Your task to perform on an android device: Show me the alarms in the clock app Image 0: 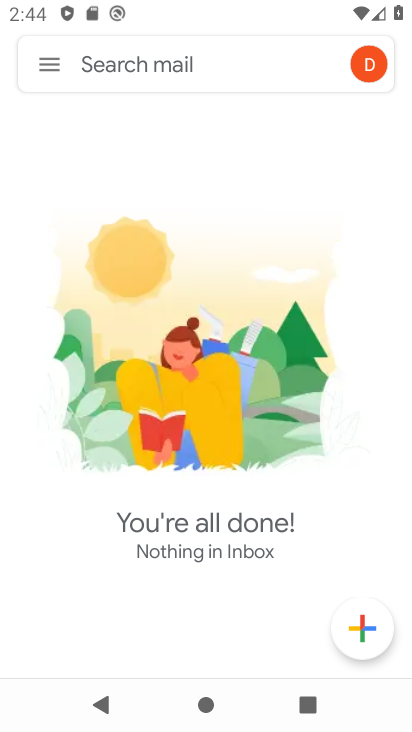
Step 0: press home button
Your task to perform on an android device: Show me the alarms in the clock app Image 1: 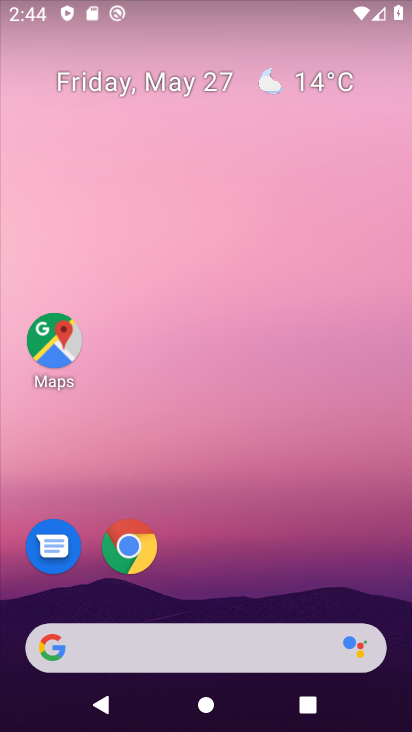
Step 1: drag from (153, 598) to (250, 214)
Your task to perform on an android device: Show me the alarms in the clock app Image 2: 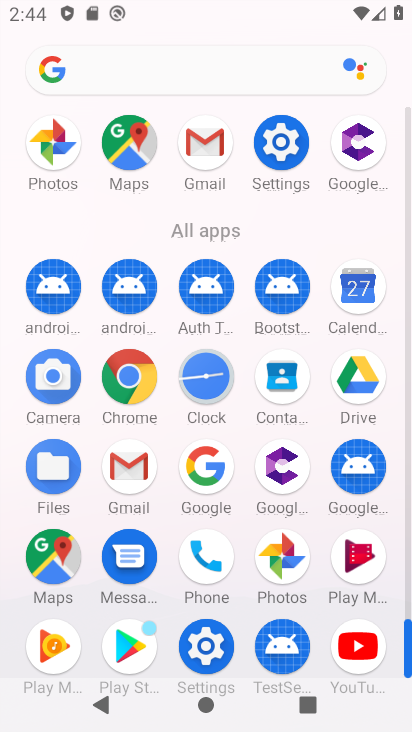
Step 2: click (199, 385)
Your task to perform on an android device: Show me the alarms in the clock app Image 3: 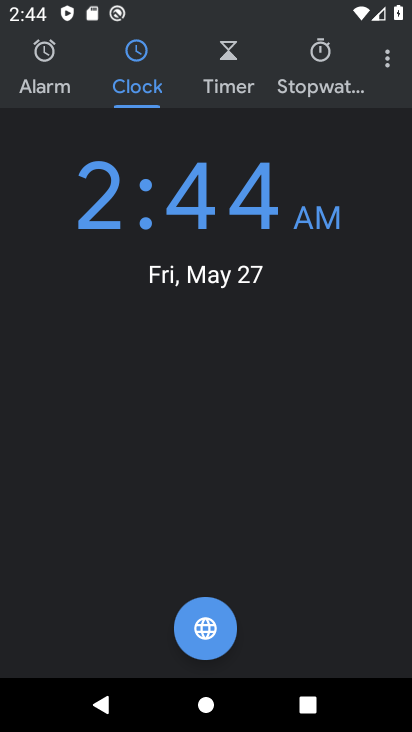
Step 3: click (62, 93)
Your task to perform on an android device: Show me the alarms in the clock app Image 4: 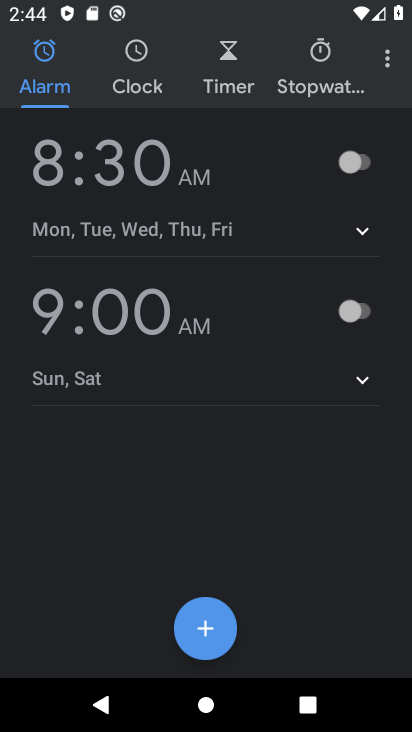
Step 4: task complete